Your task to perform on an android device: turn on improve location accuracy Image 0: 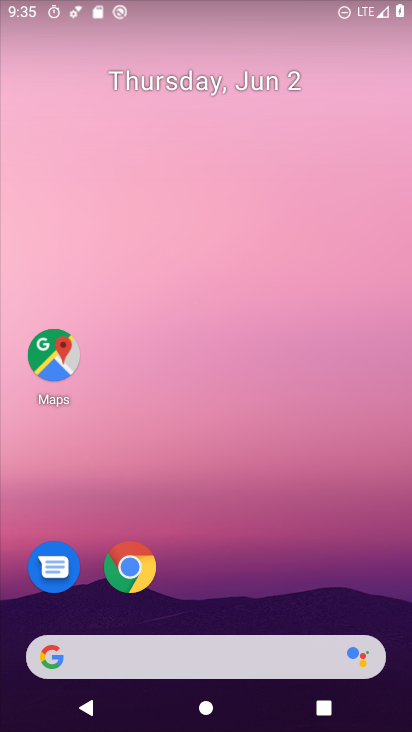
Step 0: drag from (338, 517) to (327, 96)
Your task to perform on an android device: turn on improve location accuracy Image 1: 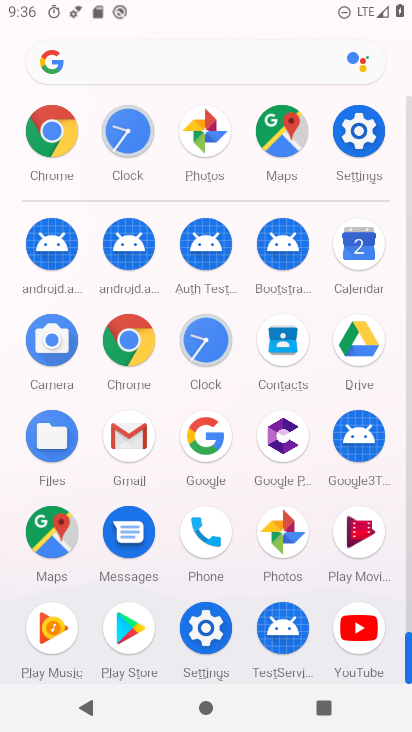
Step 1: click (366, 147)
Your task to perform on an android device: turn on improve location accuracy Image 2: 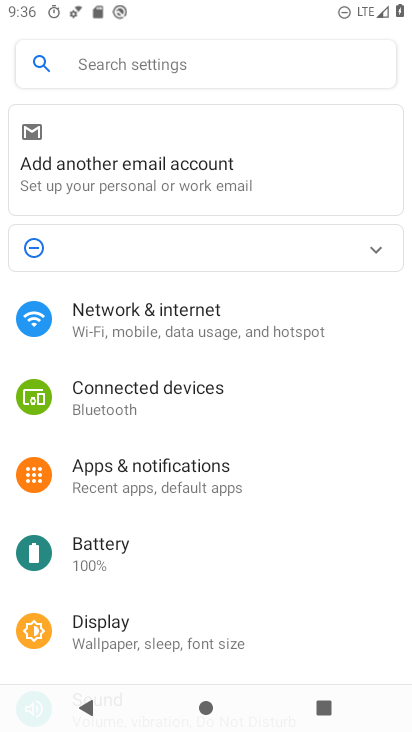
Step 2: drag from (291, 602) to (280, 330)
Your task to perform on an android device: turn on improve location accuracy Image 3: 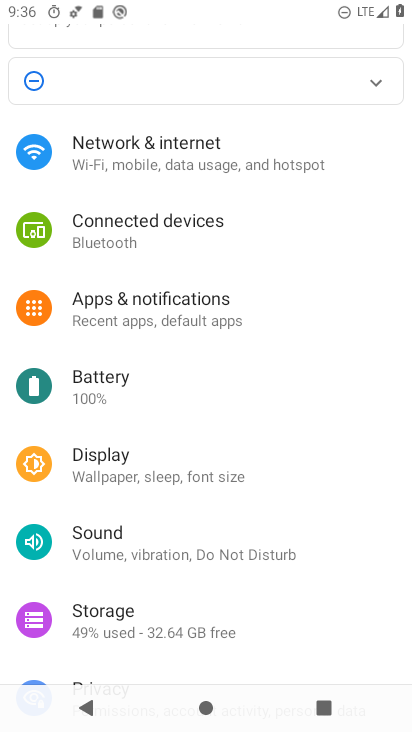
Step 3: drag from (264, 604) to (254, 298)
Your task to perform on an android device: turn on improve location accuracy Image 4: 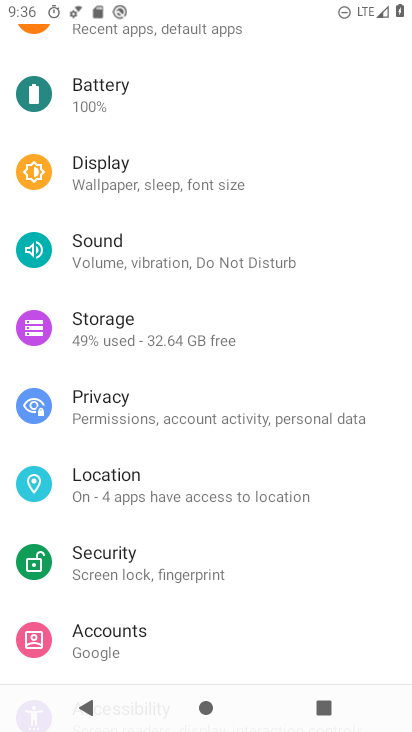
Step 4: drag from (209, 638) to (242, 301)
Your task to perform on an android device: turn on improve location accuracy Image 5: 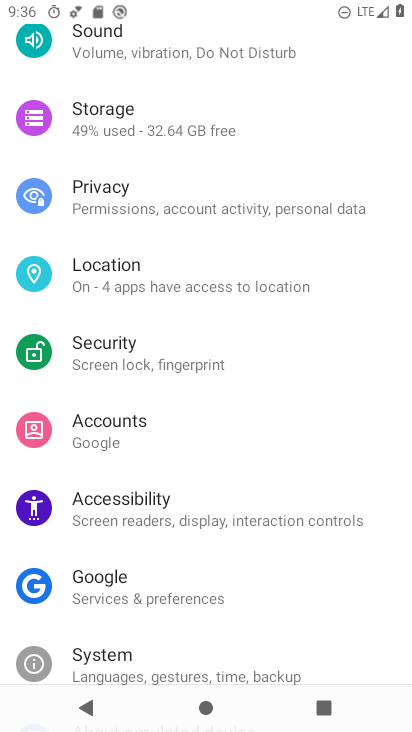
Step 5: click (136, 272)
Your task to perform on an android device: turn on improve location accuracy Image 6: 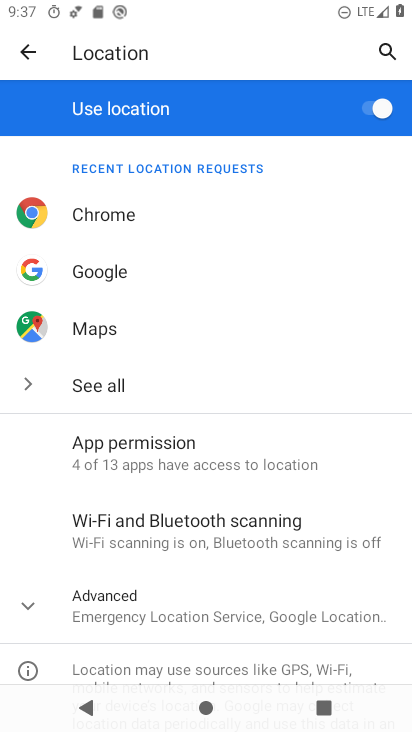
Step 6: drag from (252, 585) to (268, 320)
Your task to perform on an android device: turn on improve location accuracy Image 7: 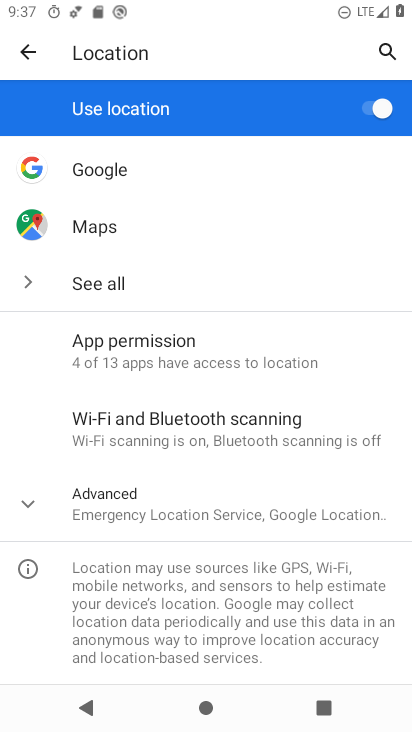
Step 7: click (227, 495)
Your task to perform on an android device: turn on improve location accuracy Image 8: 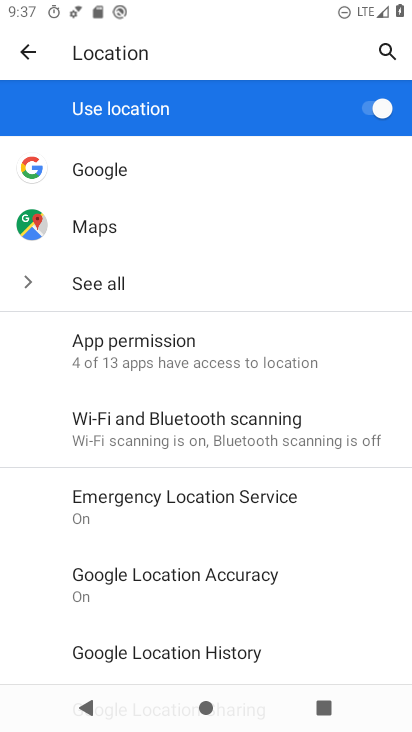
Step 8: drag from (309, 610) to (299, 288)
Your task to perform on an android device: turn on improve location accuracy Image 9: 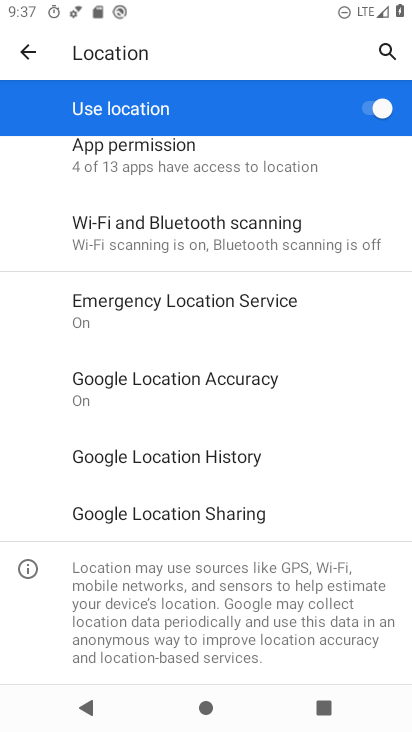
Step 9: click (229, 384)
Your task to perform on an android device: turn on improve location accuracy Image 10: 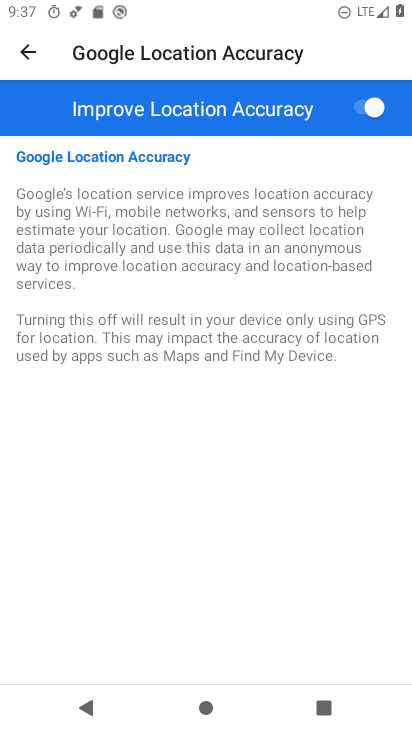
Step 10: task complete